Your task to perform on an android device: Search for "razer thresher" on target, select the first entry, and add it to the cart. Image 0: 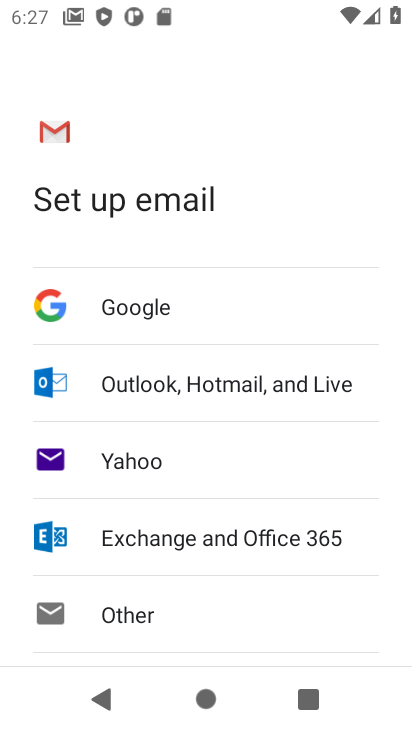
Step 0: press home button
Your task to perform on an android device: Search for "razer thresher" on target, select the first entry, and add it to the cart. Image 1: 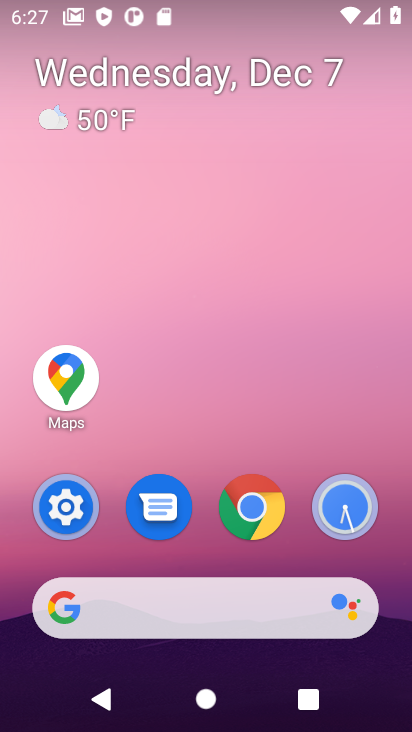
Step 1: click (265, 510)
Your task to perform on an android device: Search for "razer thresher" on target, select the first entry, and add it to the cart. Image 2: 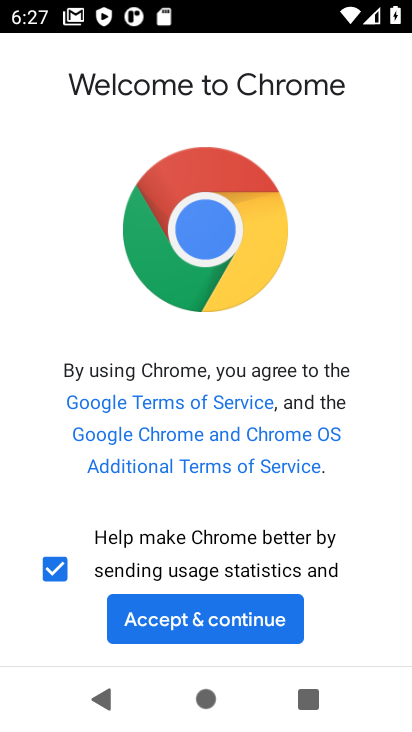
Step 2: click (130, 638)
Your task to perform on an android device: Search for "razer thresher" on target, select the first entry, and add it to the cart. Image 3: 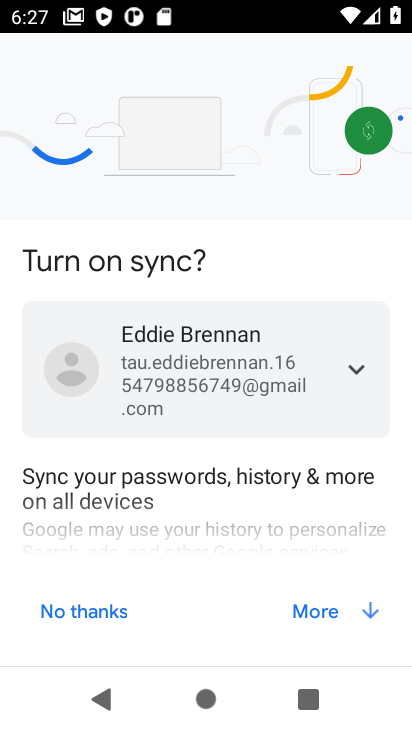
Step 3: click (366, 613)
Your task to perform on an android device: Search for "razer thresher" on target, select the first entry, and add it to the cart. Image 4: 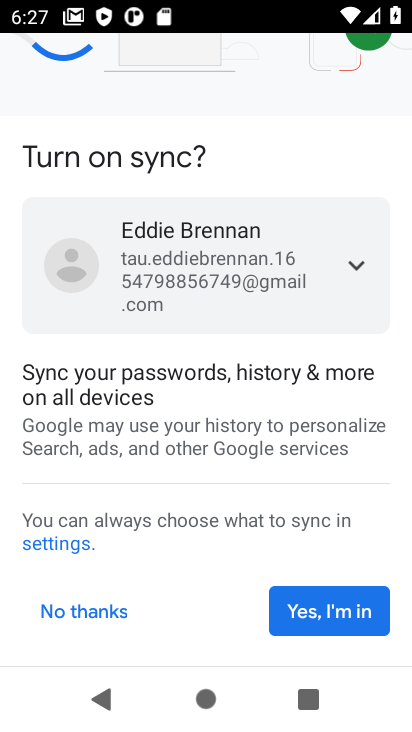
Step 4: click (318, 613)
Your task to perform on an android device: Search for "razer thresher" on target, select the first entry, and add it to the cart. Image 5: 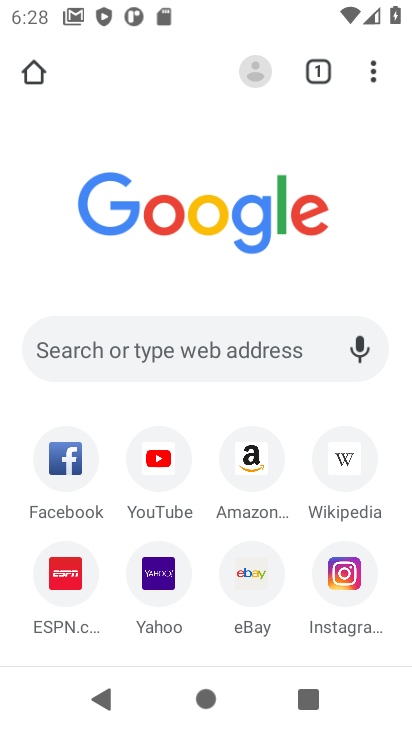
Step 5: click (230, 346)
Your task to perform on an android device: Search for "razer thresher" on target, select the first entry, and add it to the cart. Image 6: 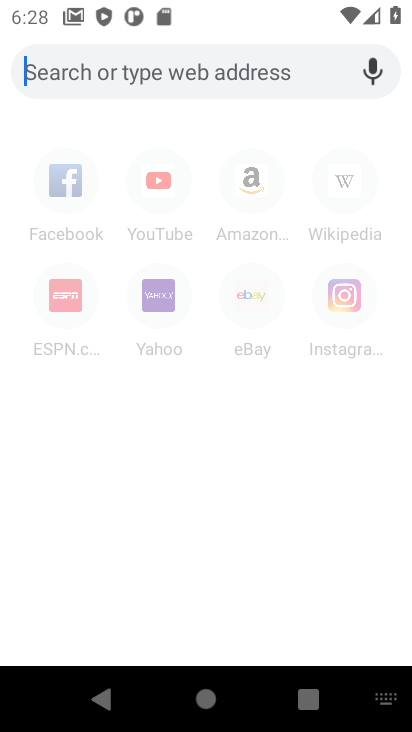
Step 6: type "target"
Your task to perform on an android device: Search for "razer thresher" on target, select the first entry, and add it to the cart. Image 7: 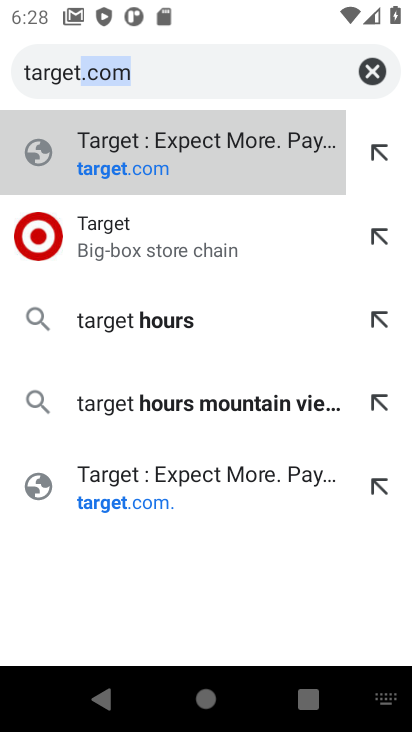
Step 7: click (110, 244)
Your task to perform on an android device: Search for "razer thresher" on target, select the first entry, and add it to the cart. Image 8: 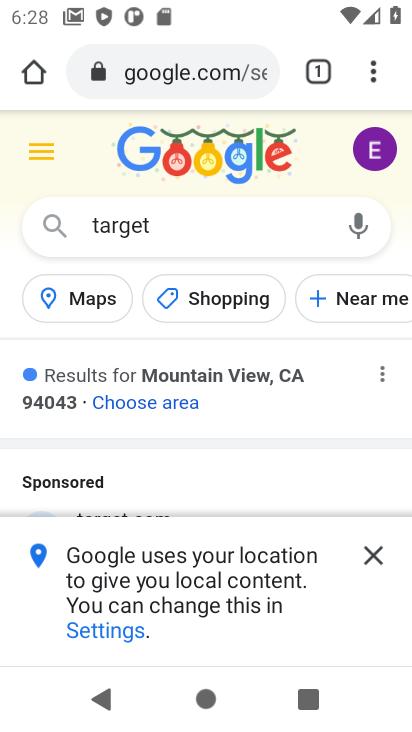
Step 8: click (364, 549)
Your task to perform on an android device: Search for "razer thresher" on target, select the first entry, and add it to the cart. Image 9: 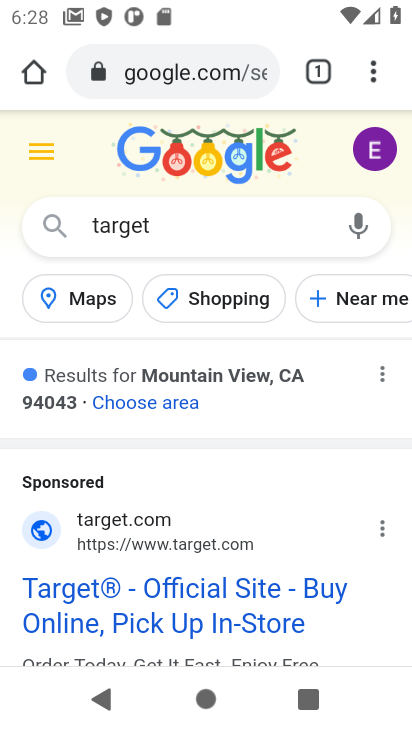
Step 9: drag from (304, 634) to (350, 298)
Your task to perform on an android device: Search for "razer thresher" on target, select the first entry, and add it to the cart. Image 10: 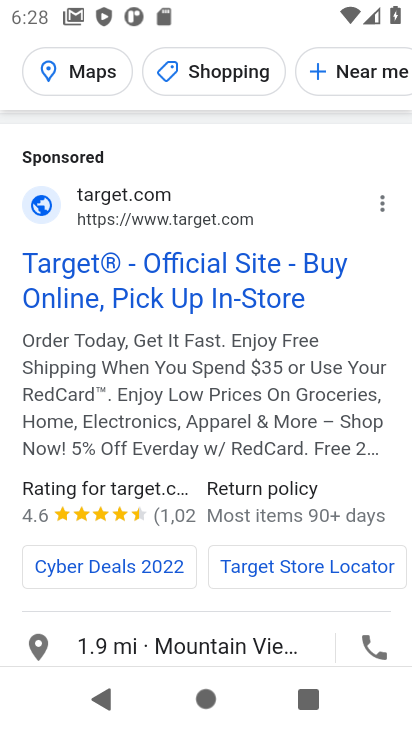
Step 10: drag from (213, 507) to (355, 83)
Your task to perform on an android device: Search for "razer thresher" on target, select the first entry, and add it to the cart. Image 11: 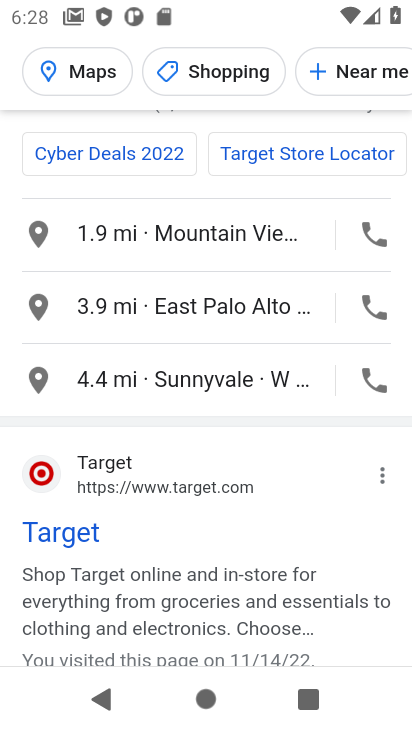
Step 11: click (94, 534)
Your task to perform on an android device: Search for "razer thresher" on target, select the first entry, and add it to the cart. Image 12: 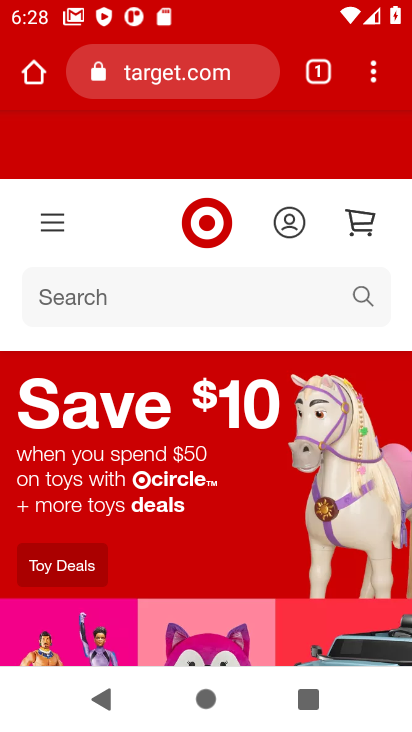
Step 12: click (135, 305)
Your task to perform on an android device: Search for "razer thresher" on target, select the first entry, and add it to the cart. Image 13: 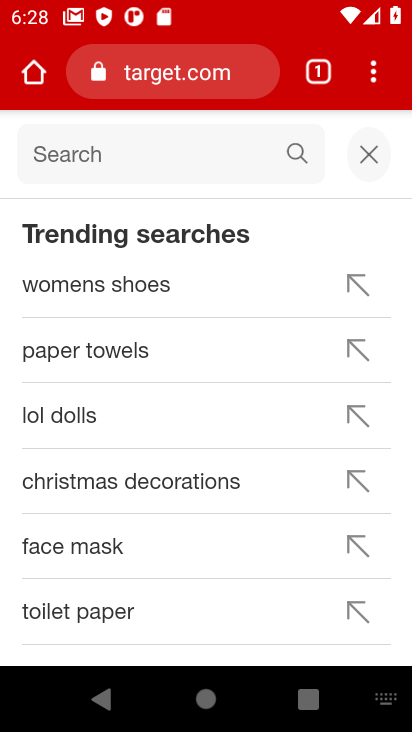
Step 13: type "razer thresher"
Your task to perform on an android device: Search for "razer thresher" on target, select the first entry, and add it to the cart. Image 14: 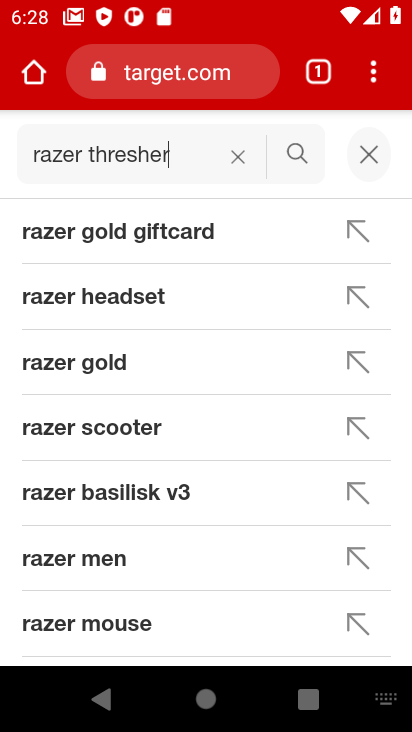
Step 14: click (298, 154)
Your task to perform on an android device: Search for "razer thresher" on target, select the first entry, and add it to the cart. Image 15: 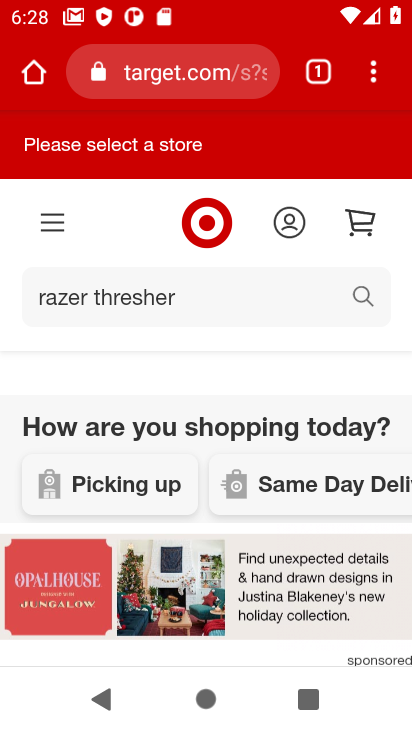
Step 15: task complete